Your task to perform on an android device: Go to privacy settings Image 0: 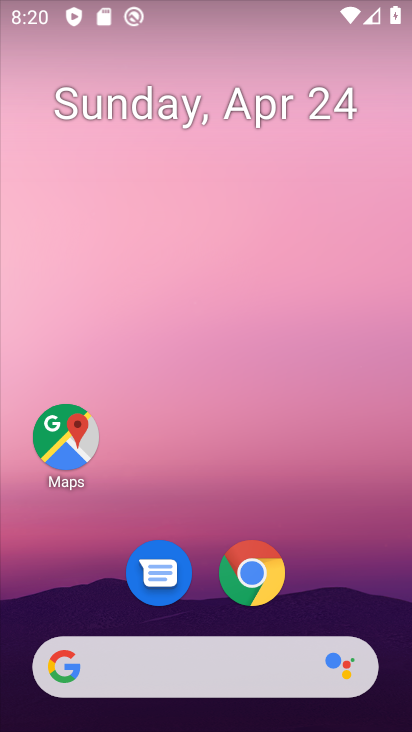
Step 0: drag from (337, 484) to (329, 171)
Your task to perform on an android device: Go to privacy settings Image 1: 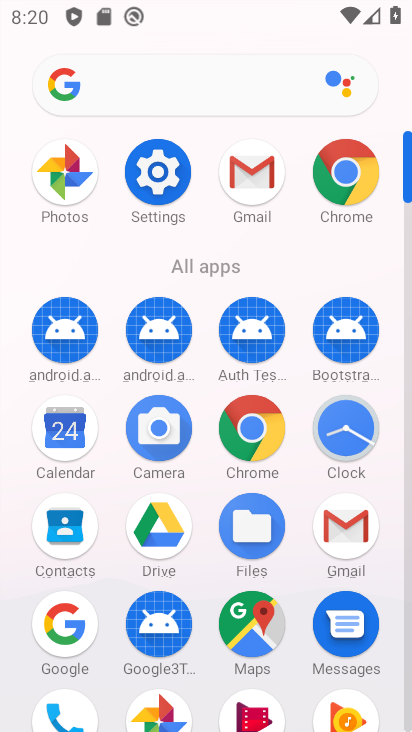
Step 1: click (359, 177)
Your task to perform on an android device: Go to privacy settings Image 2: 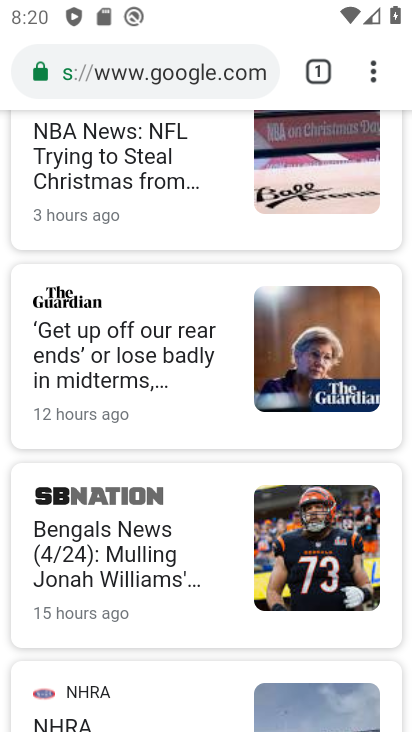
Step 2: drag from (370, 68) to (195, 565)
Your task to perform on an android device: Go to privacy settings Image 3: 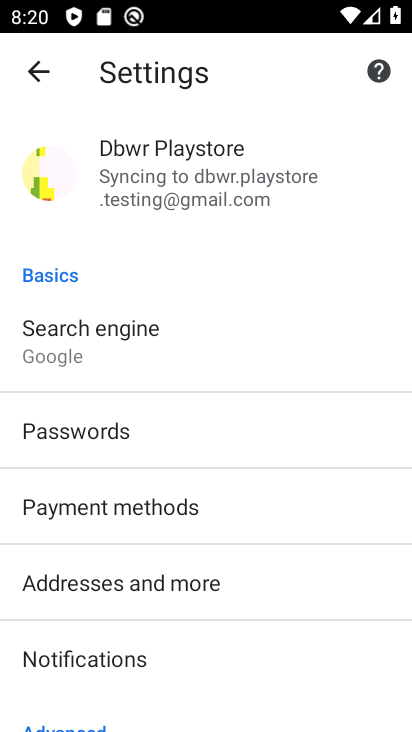
Step 3: drag from (261, 662) to (250, 313)
Your task to perform on an android device: Go to privacy settings Image 4: 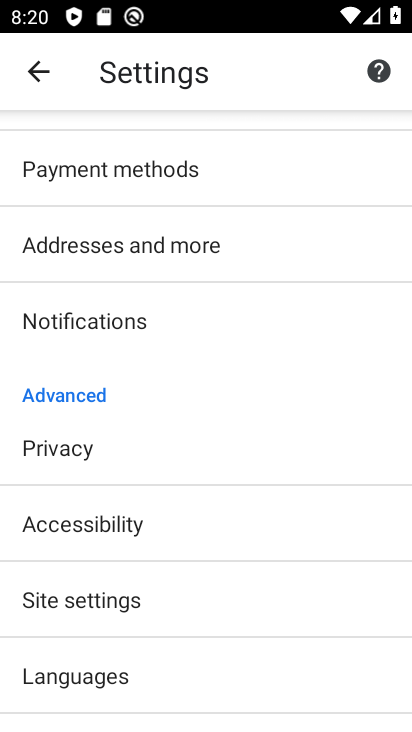
Step 4: click (49, 447)
Your task to perform on an android device: Go to privacy settings Image 5: 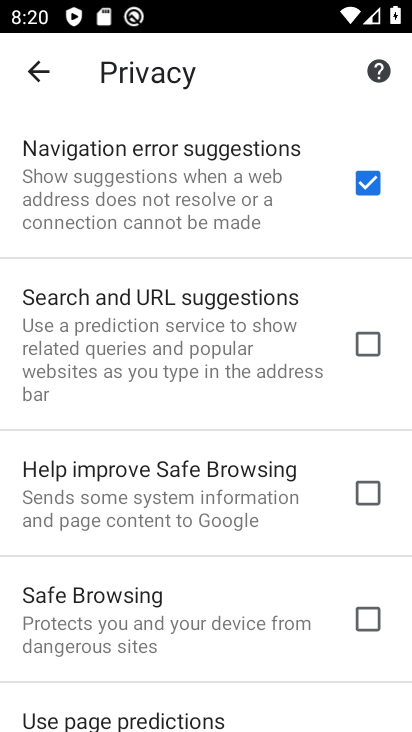
Step 5: task complete